Your task to perform on an android device: change the upload size in google photos Image 0: 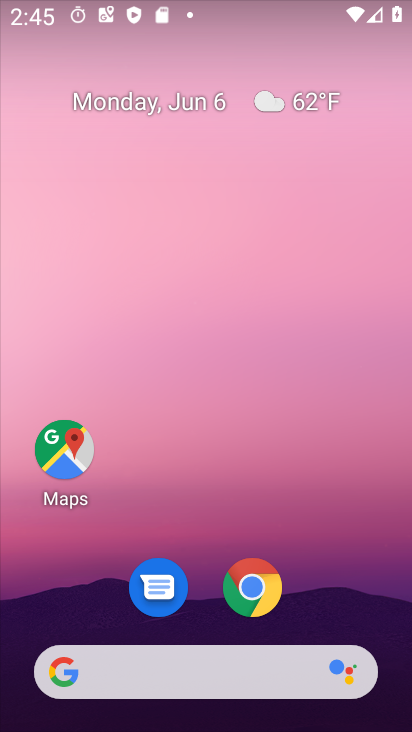
Step 0: drag from (311, 514) to (175, 13)
Your task to perform on an android device: change the upload size in google photos Image 1: 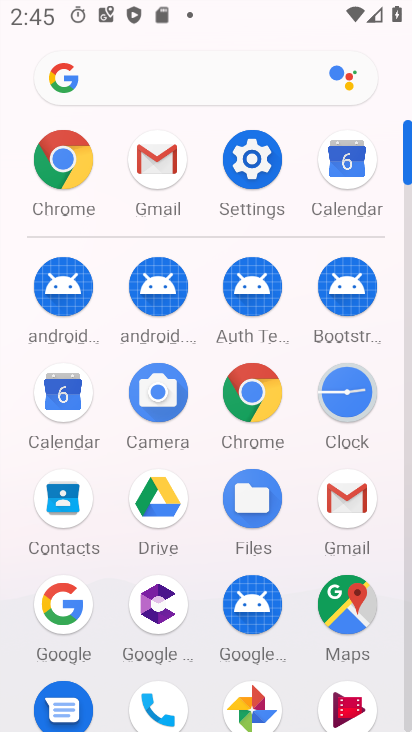
Step 1: drag from (10, 630) to (38, 261)
Your task to perform on an android device: change the upload size in google photos Image 2: 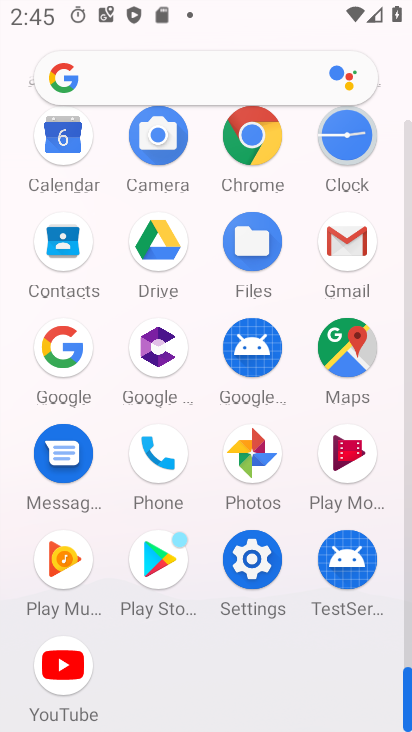
Step 2: click (251, 452)
Your task to perform on an android device: change the upload size in google photos Image 3: 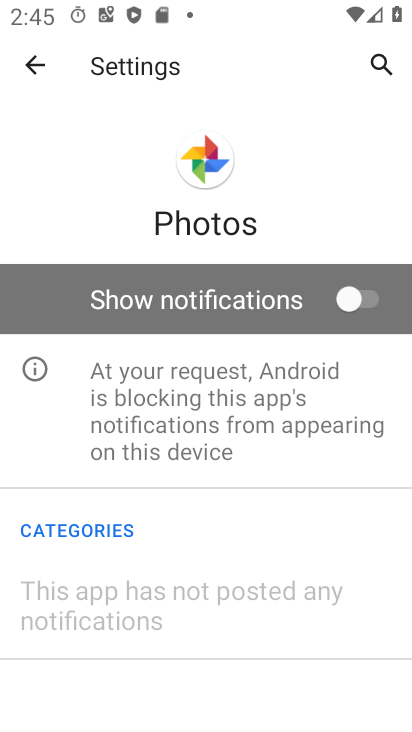
Step 3: click (43, 59)
Your task to perform on an android device: change the upload size in google photos Image 4: 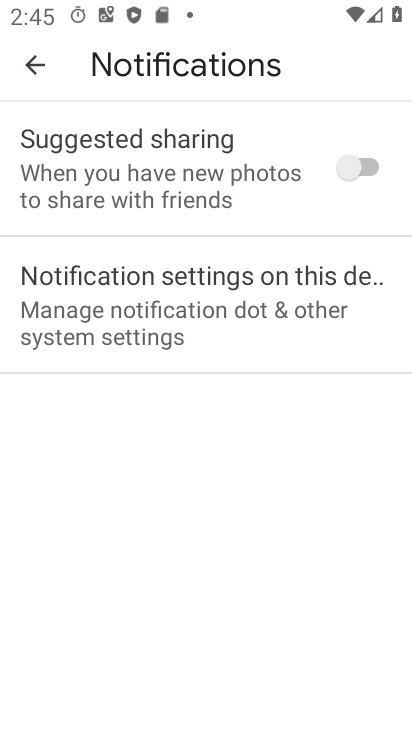
Step 4: click (43, 59)
Your task to perform on an android device: change the upload size in google photos Image 5: 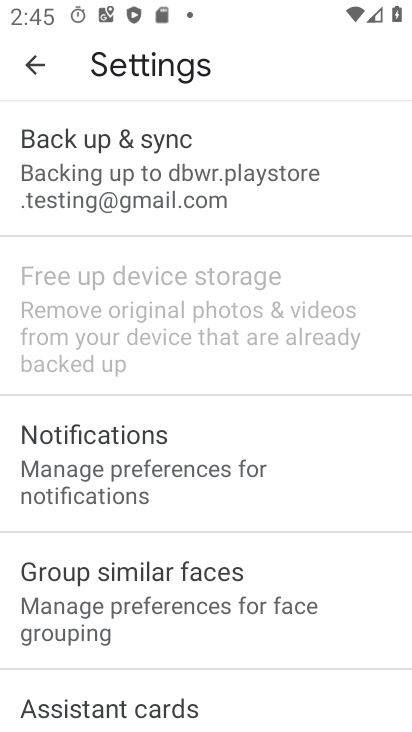
Step 5: click (156, 164)
Your task to perform on an android device: change the upload size in google photos Image 6: 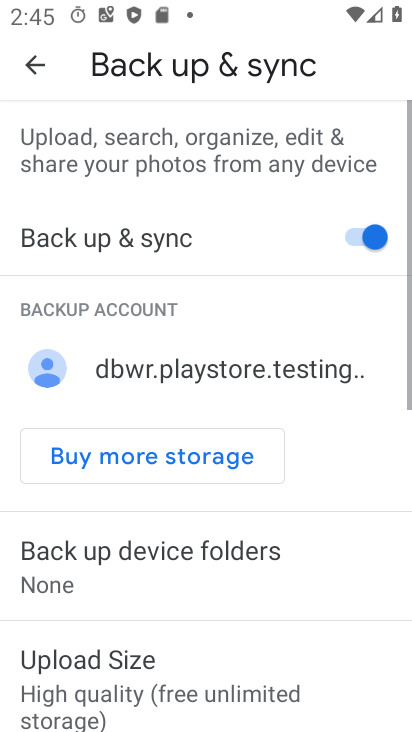
Step 6: drag from (252, 609) to (218, 241)
Your task to perform on an android device: change the upload size in google photos Image 7: 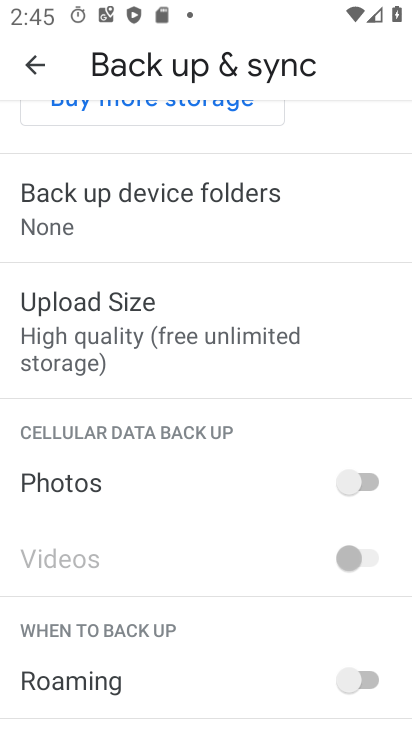
Step 7: click (151, 323)
Your task to perform on an android device: change the upload size in google photos Image 8: 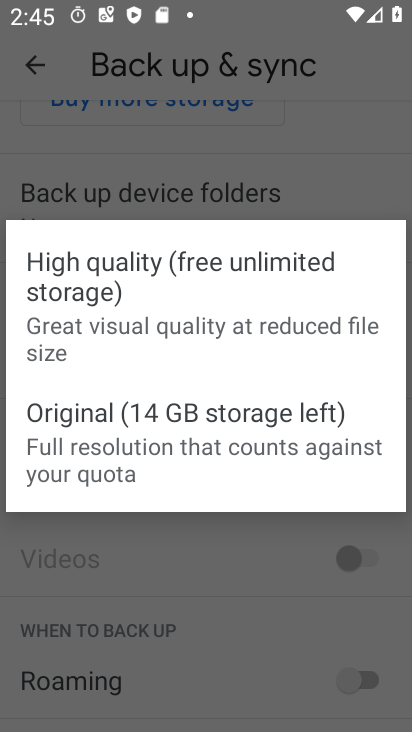
Step 8: click (131, 430)
Your task to perform on an android device: change the upload size in google photos Image 9: 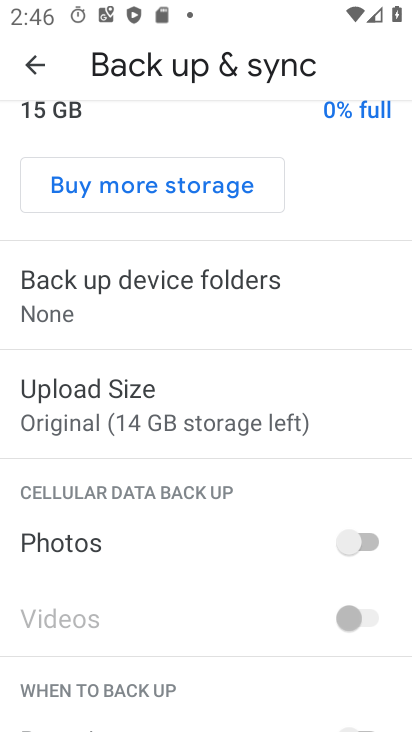
Step 9: task complete